Your task to perform on an android device: Open Maps and search for coffee Image 0: 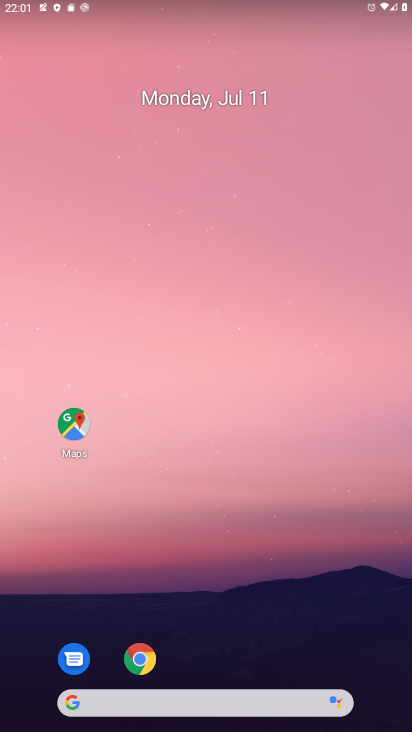
Step 0: drag from (203, 599) to (159, 35)
Your task to perform on an android device: Open Maps and search for coffee Image 1: 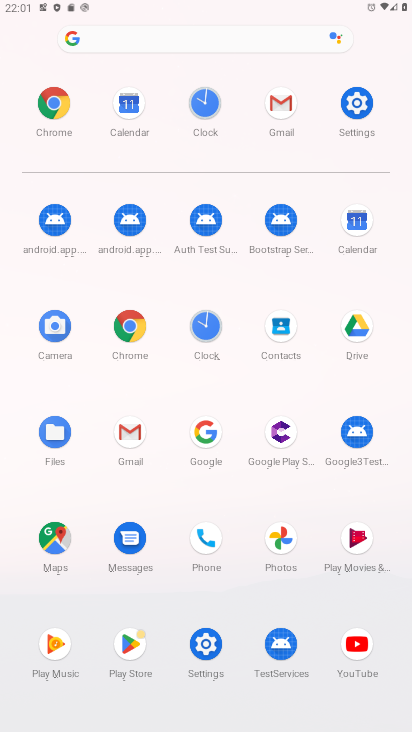
Step 1: click (48, 537)
Your task to perform on an android device: Open Maps and search for coffee Image 2: 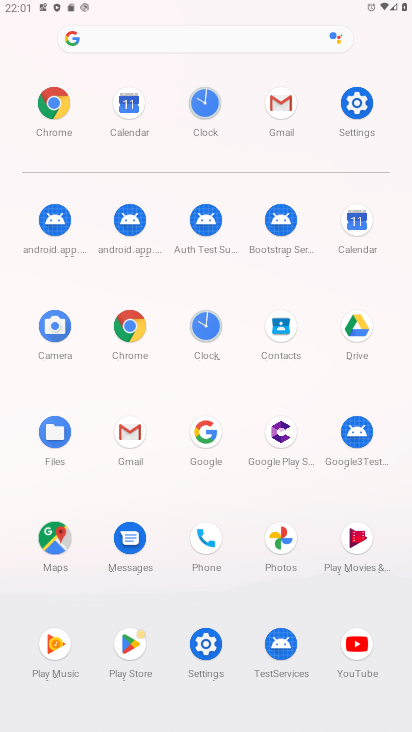
Step 2: click (47, 536)
Your task to perform on an android device: Open Maps and search for coffee Image 3: 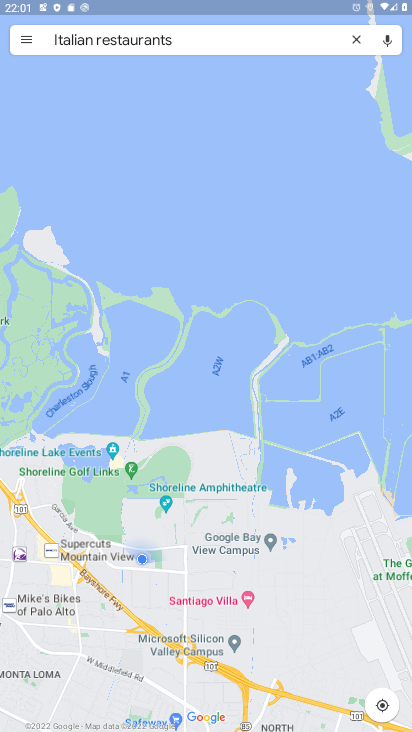
Step 3: click (351, 47)
Your task to perform on an android device: Open Maps and search for coffee Image 4: 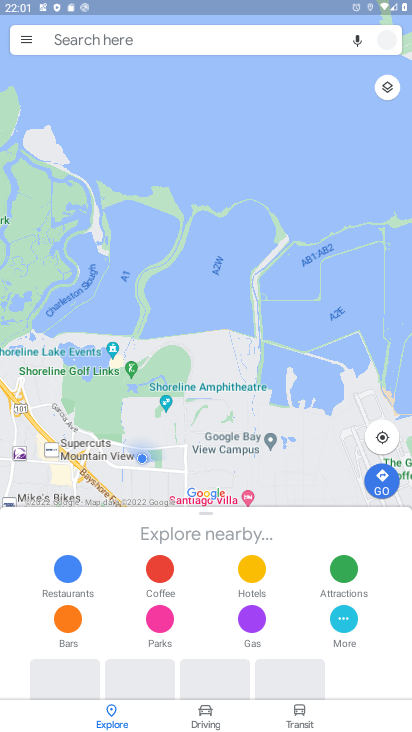
Step 4: click (138, 50)
Your task to perform on an android device: Open Maps and search for coffee Image 5: 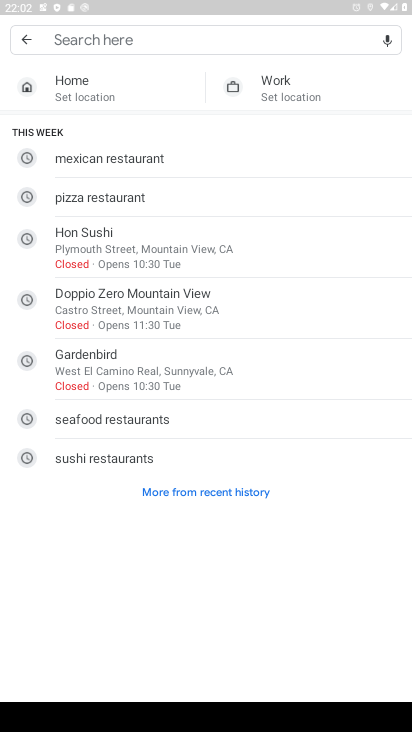
Step 5: type "coffee"
Your task to perform on an android device: Open Maps and search for coffee Image 6: 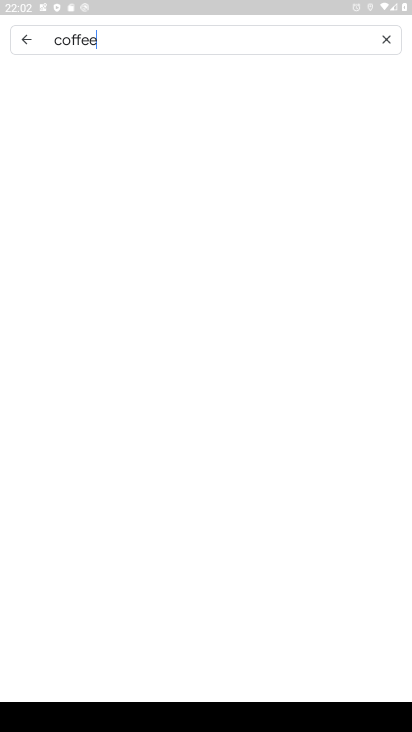
Step 6: type ""
Your task to perform on an android device: Open Maps and search for coffee Image 7: 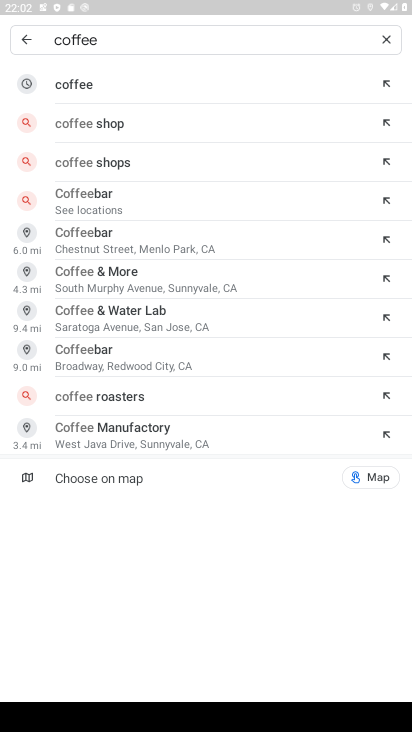
Step 7: click (105, 86)
Your task to perform on an android device: Open Maps and search for coffee Image 8: 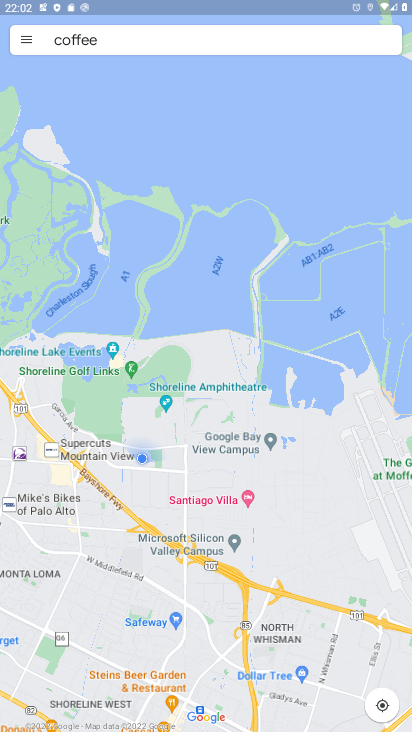
Step 8: task complete